Your task to perform on an android device: turn off priority inbox in the gmail app Image 0: 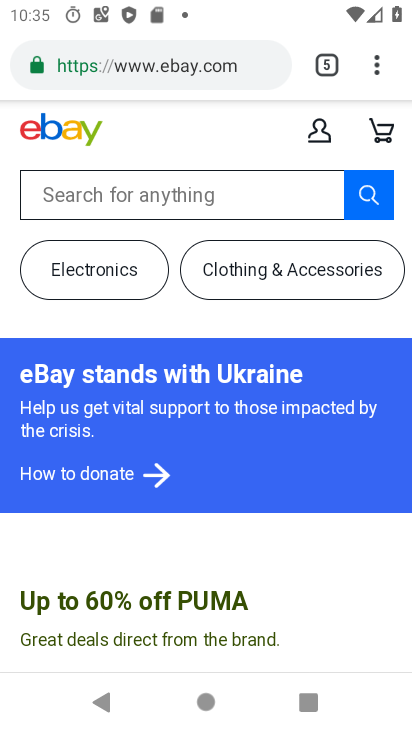
Step 0: press home button
Your task to perform on an android device: turn off priority inbox in the gmail app Image 1: 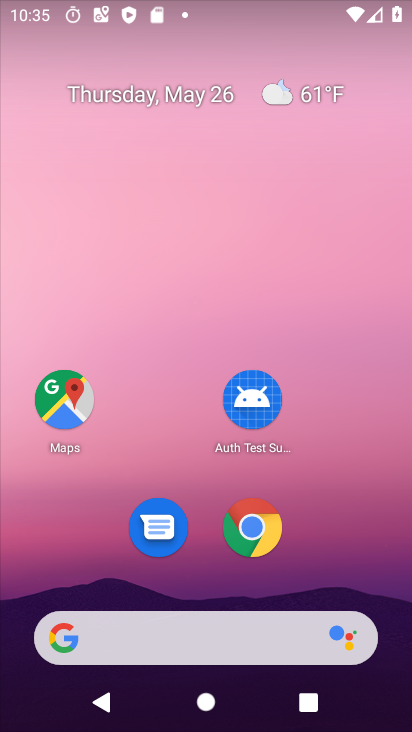
Step 1: drag from (353, 529) to (355, 38)
Your task to perform on an android device: turn off priority inbox in the gmail app Image 2: 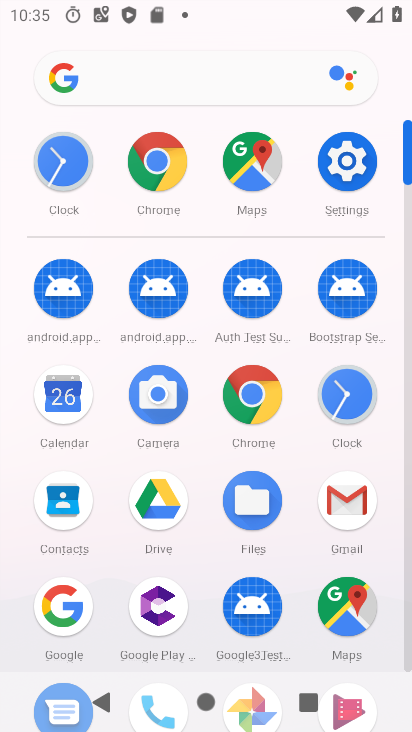
Step 2: click (334, 515)
Your task to perform on an android device: turn off priority inbox in the gmail app Image 3: 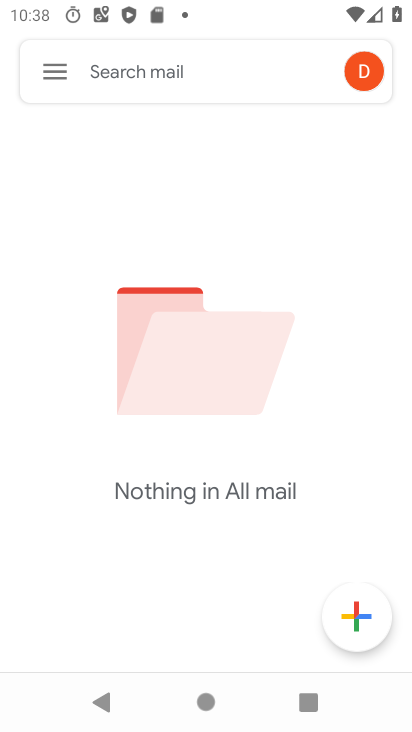
Step 3: click (58, 67)
Your task to perform on an android device: turn off priority inbox in the gmail app Image 4: 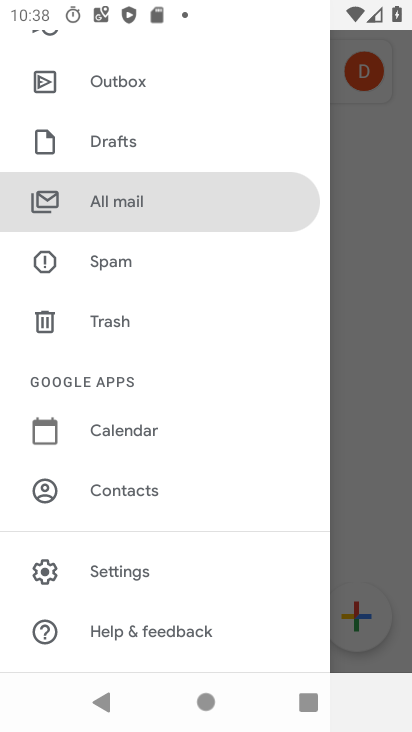
Step 4: click (121, 573)
Your task to perform on an android device: turn off priority inbox in the gmail app Image 5: 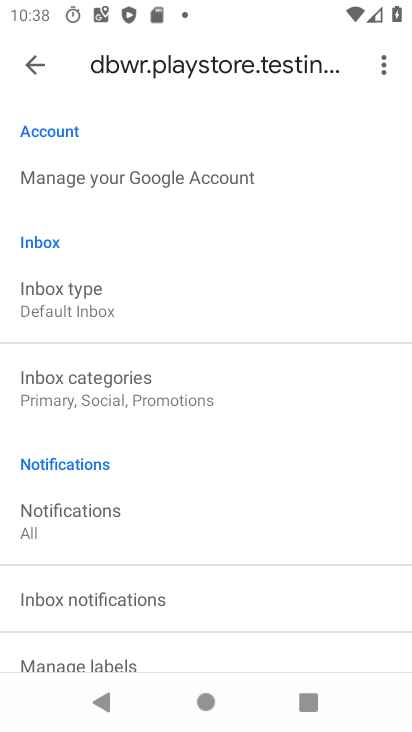
Step 5: click (86, 306)
Your task to perform on an android device: turn off priority inbox in the gmail app Image 6: 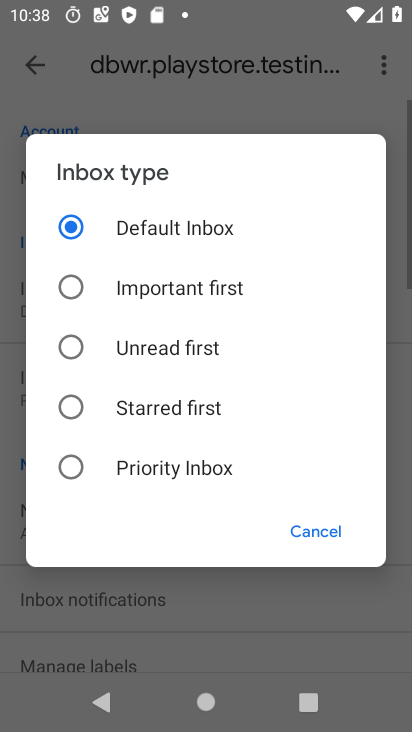
Step 6: task complete